Your task to perform on an android device: What is the news today? Image 0: 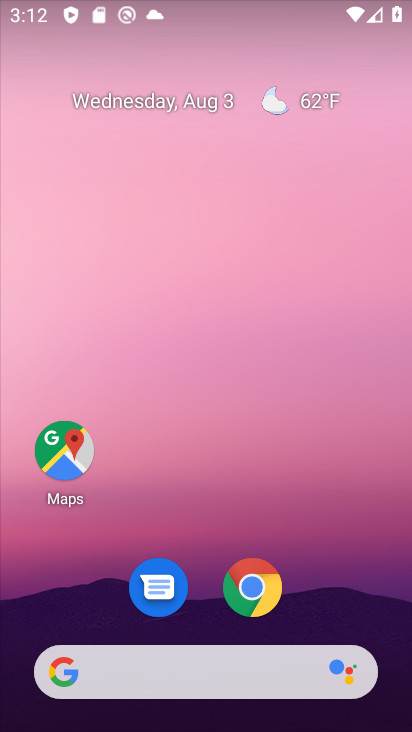
Step 0: drag from (33, 626) to (106, 263)
Your task to perform on an android device: What is the news today? Image 1: 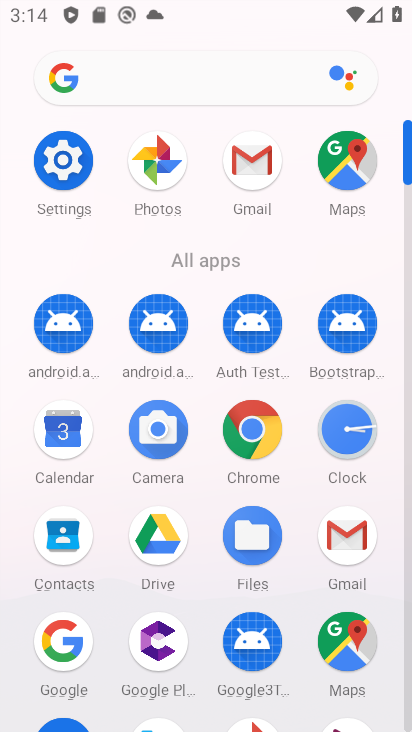
Step 1: click (96, 75)
Your task to perform on an android device: What is the news today? Image 2: 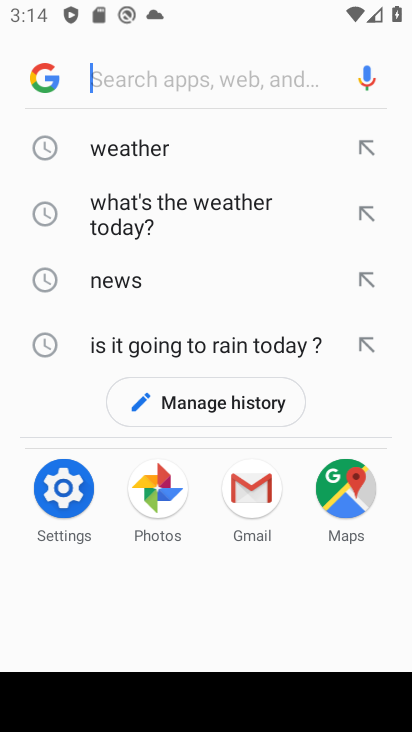
Step 2: type "What is the news today?"
Your task to perform on an android device: What is the news today? Image 3: 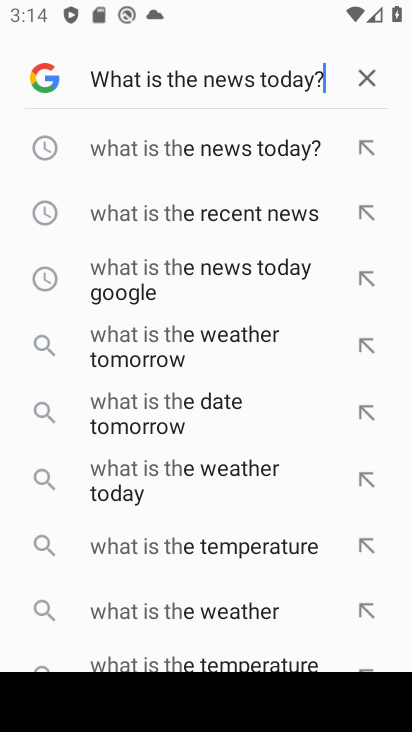
Step 3: type ""
Your task to perform on an android device: What is the news today? Image 4: 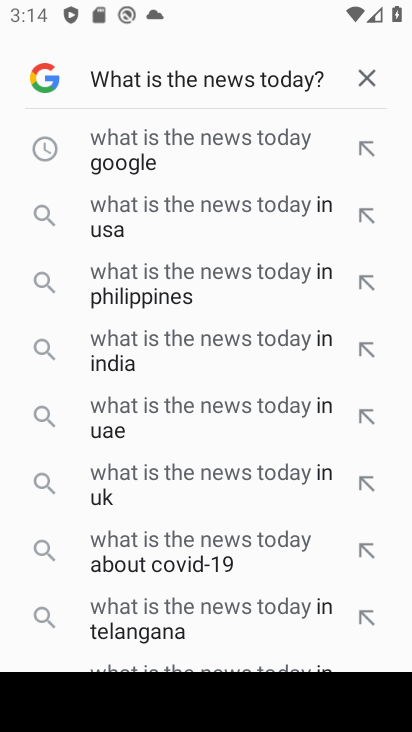
Step 4: type ""
Your task to perform on an android device: What is the news today? Image 5: 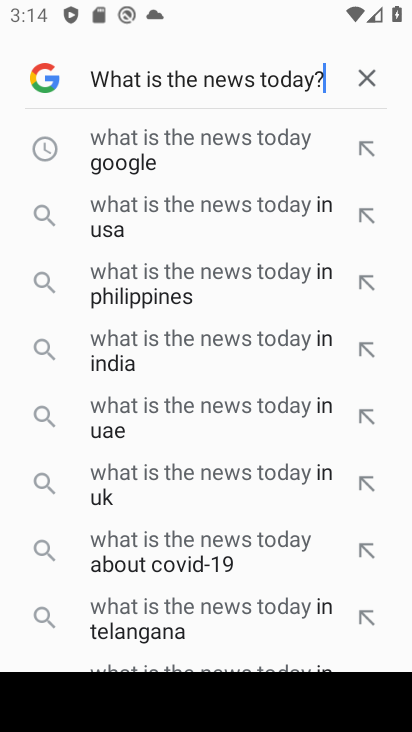
Step 5: type ""
Your task to perform on an android device: What is the news today? Image 6: 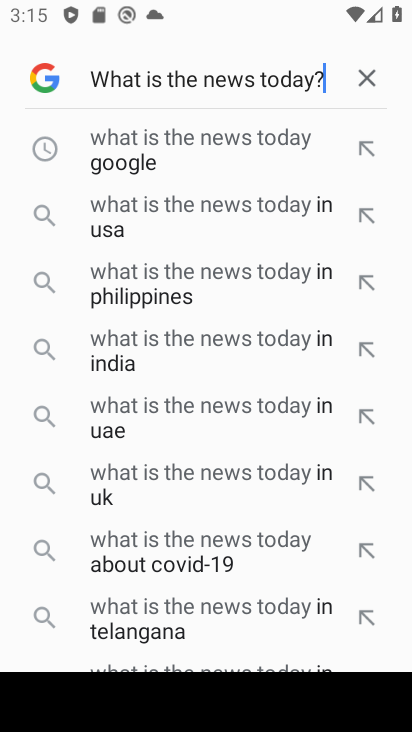
Step 6: task complete